Your task to perform on an android device: Open maps Image 0: 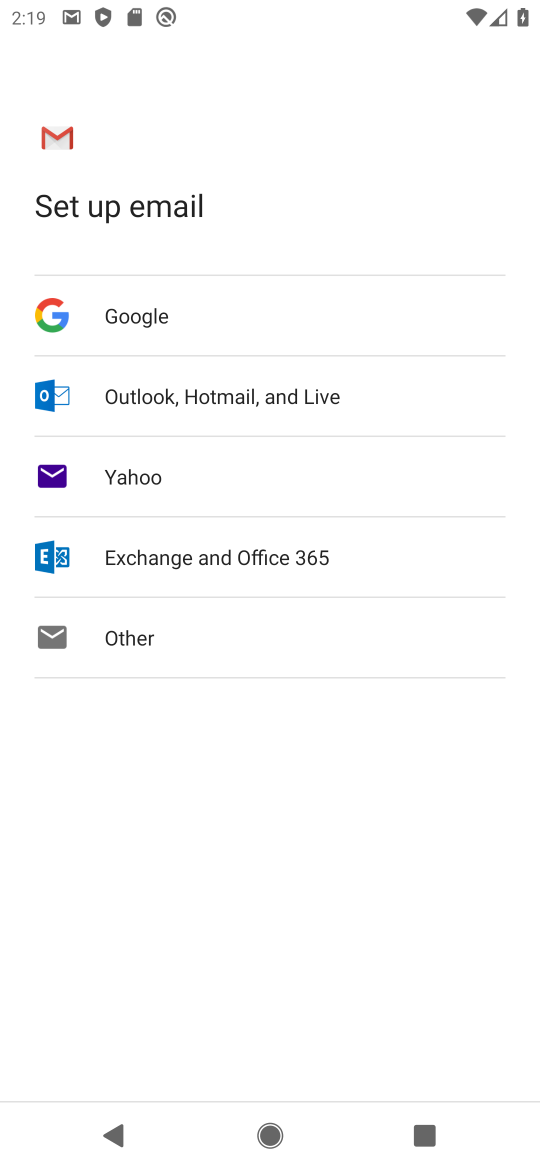
Step 0: press home button
Your task to perform on an android device: Open maps Image 1: 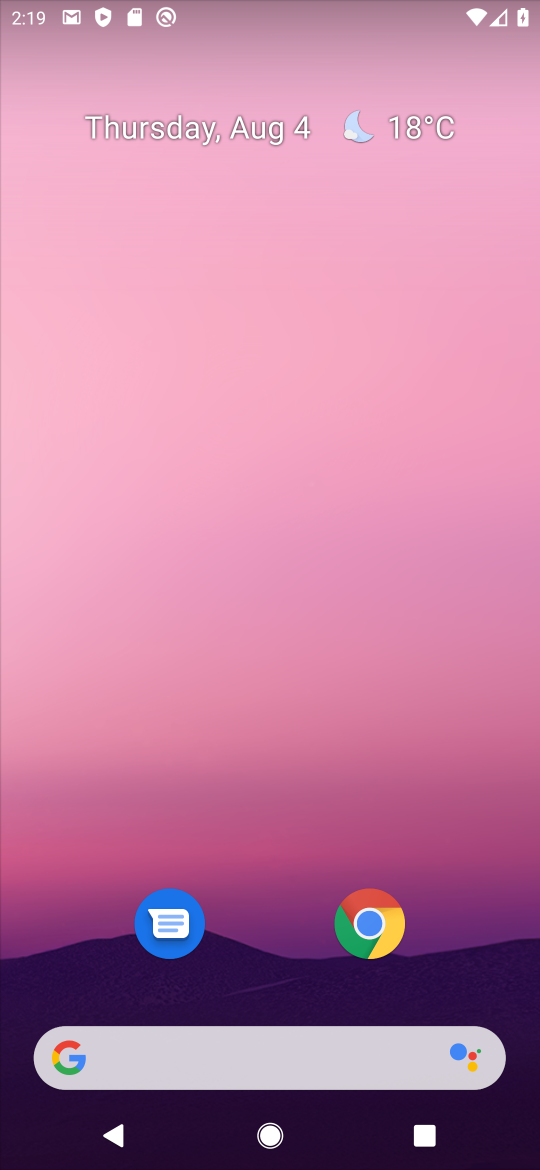
Step 1: drag from (335, 1102) to (263, 133)
Your task to perform on an android device: Open maps Image 2: 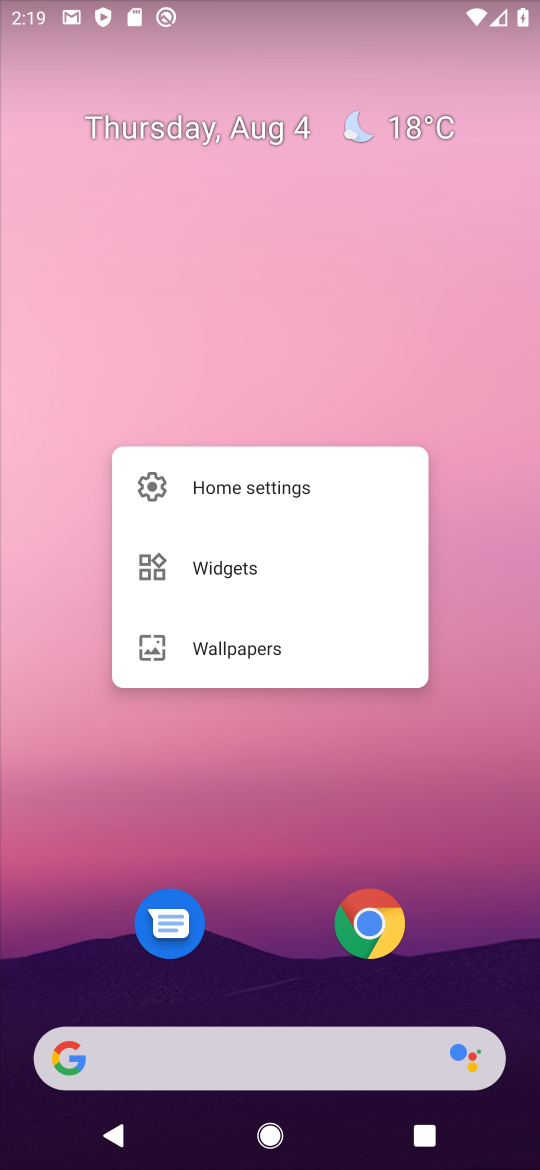
Step 2: click (514, 838)
Your task to perform on an android device: Open maps Image 3: 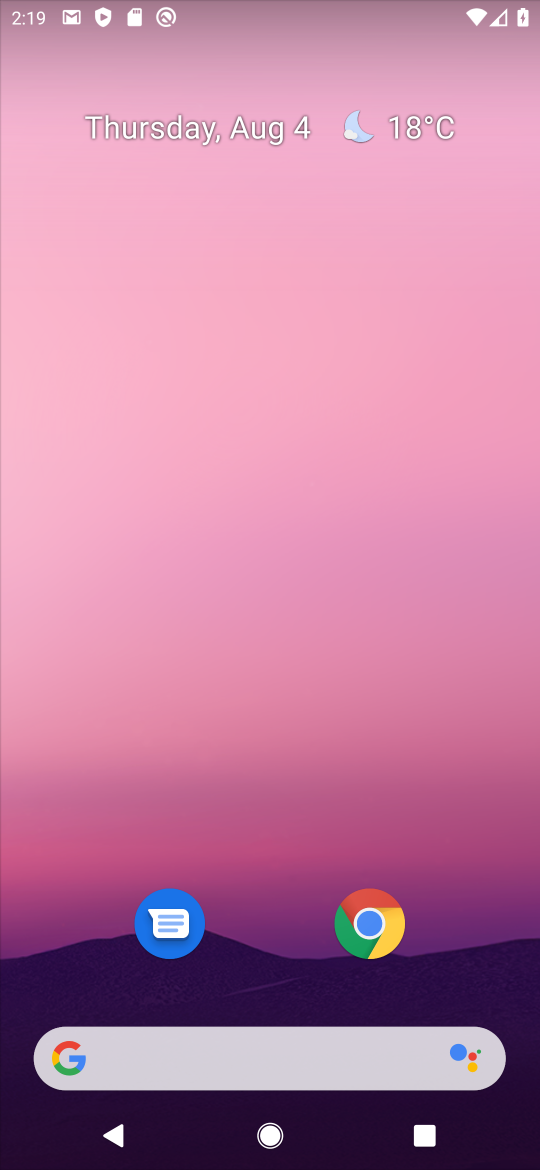
Step 3: drag from (270, 713) to (140, 15)
Your task to perform on an android device: Open maps Image 4: 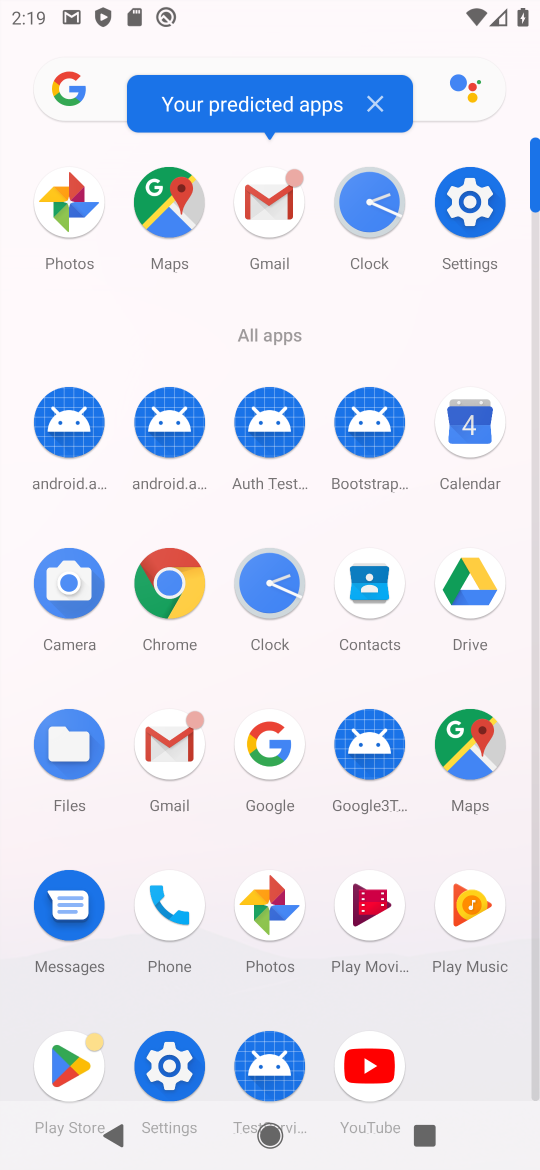
Step 4: click (463, 769)
Your task to perform on an android device: Open maps Image 5: 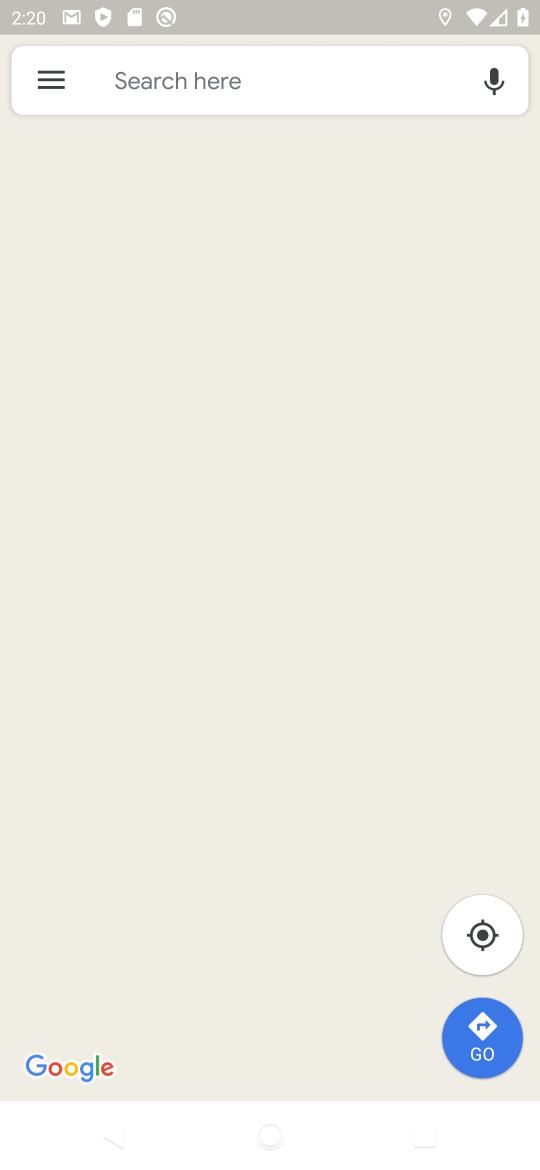
Step 5: task complete